Your task to perform on an android device: stop showing notifications on the lock screen Image 0: 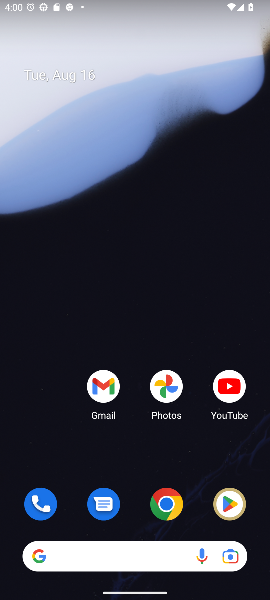
Step 0: drag from (131, 519) to (111, 55)
Your task to perform on an android device: stop showing notifications on the lock screen Image 1: 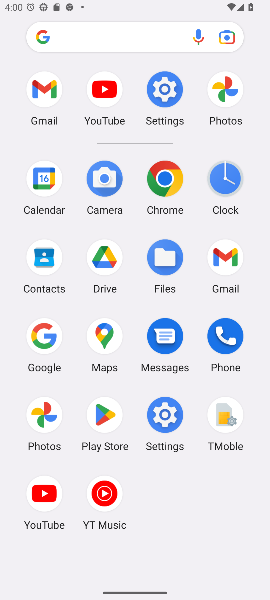
Step 1: click (162, 92)
Your task to perform on an android device: stop showing notifications on the lock screen Image 2: 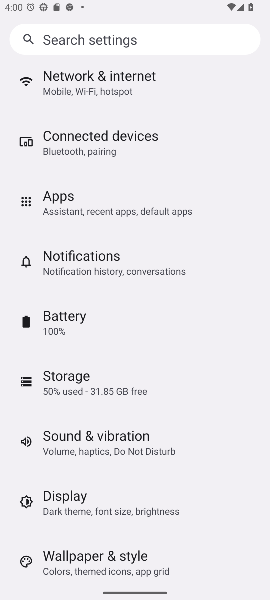
Step 2: click (74, 255)
Your task to perform on an android device: stop showing notifications on the lock screen Image 3: 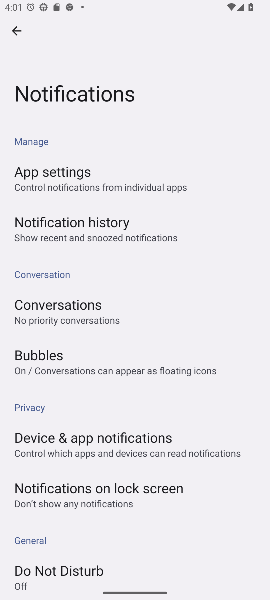
Step 3: click (107, 481)
Your task to perform on an android device: stop showing notifications on the lock screen Image 4: 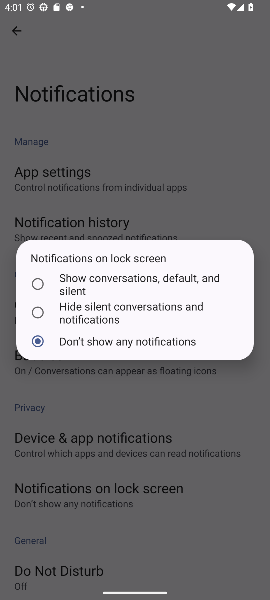
Step 4: task complete